Your task to perform on an android device: allow notifications from all sites in the chrome app Image 0: 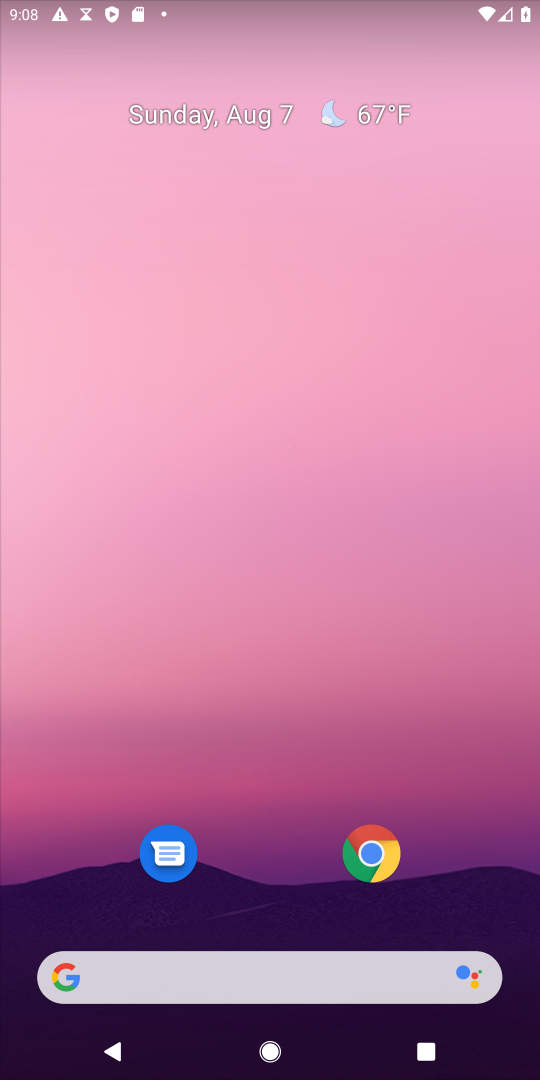
Step 0: drag from (245, 893) to (208, 269)
Your task to perform on an android device: allow notifications from all sites in the chrome app Image 1: 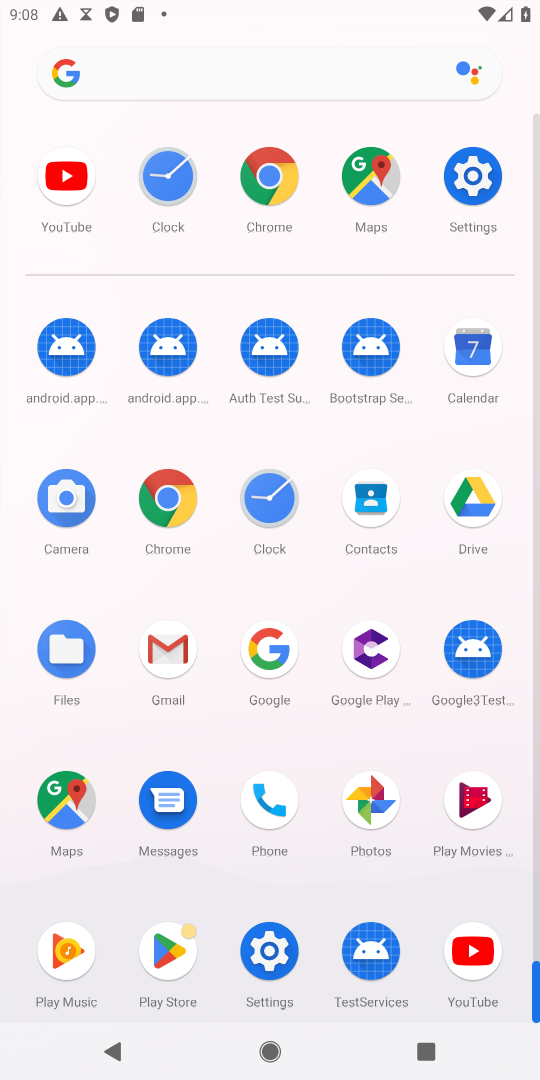
Step 1: click (178, 494)
Your task to perform on an android device: allow notifications from all sites in the chrome app Image 2: 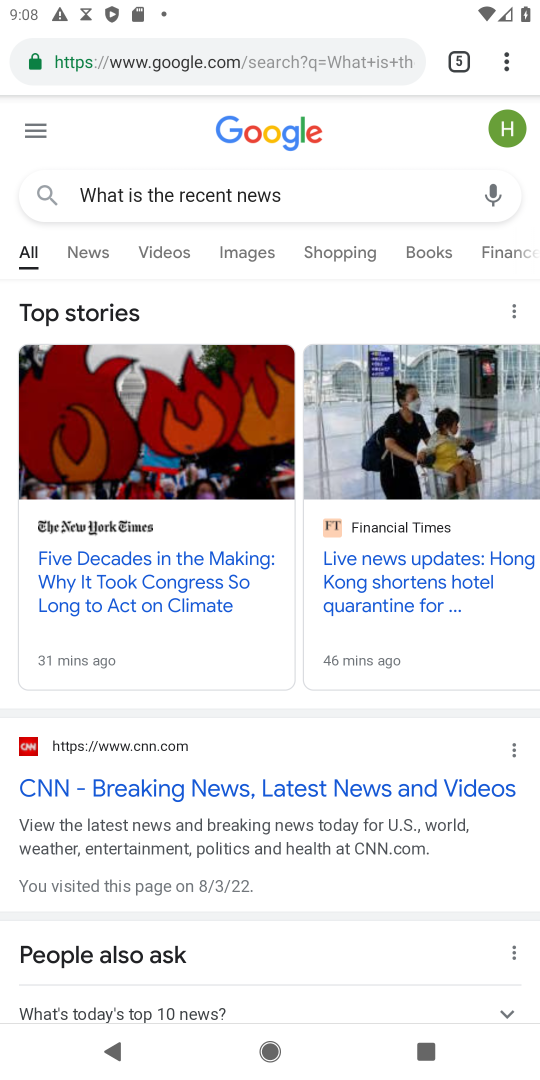
Step 2: click (514, 75)
Your task to perform on an android device: allow notifications from all sites in the chrome app Image 3: 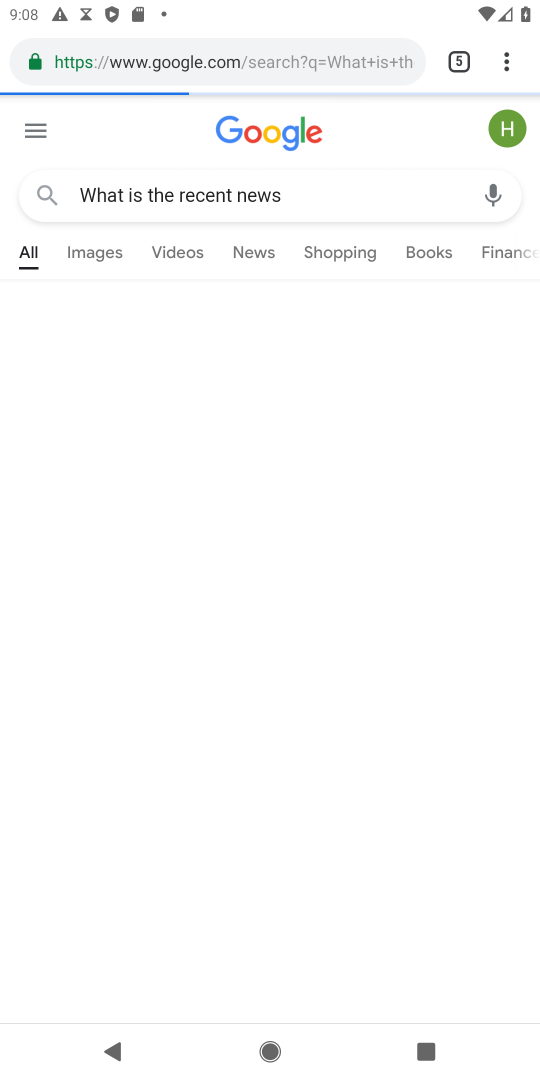
Step 3: click (506, 63)
Your task to perform on an android device: allow notifications from all sites in the chrome app Image 4: 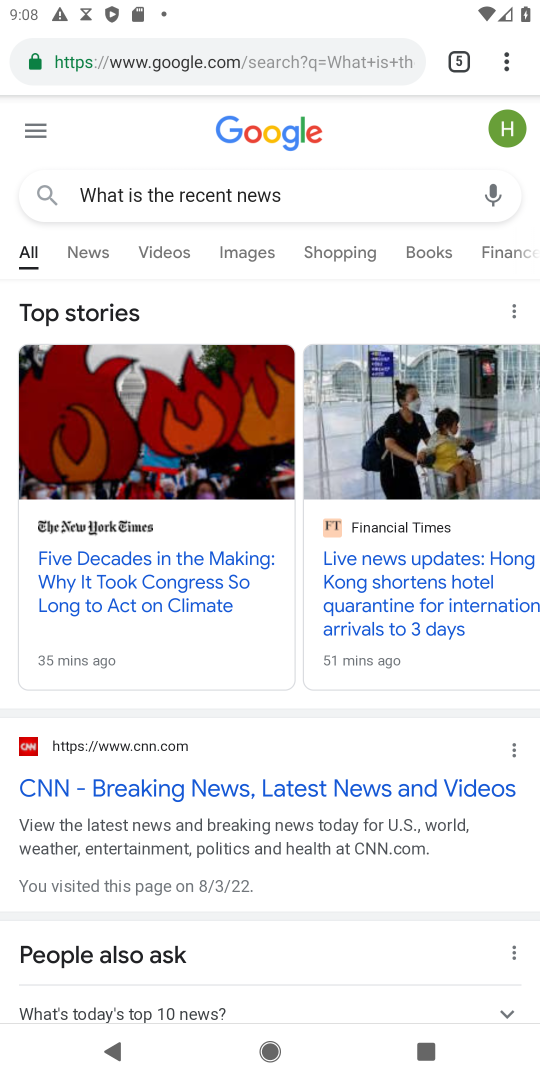
Step 4: click (514, 68)
Your task to perform on an android device: allow notifications from all sites in the chrome app Image 5: 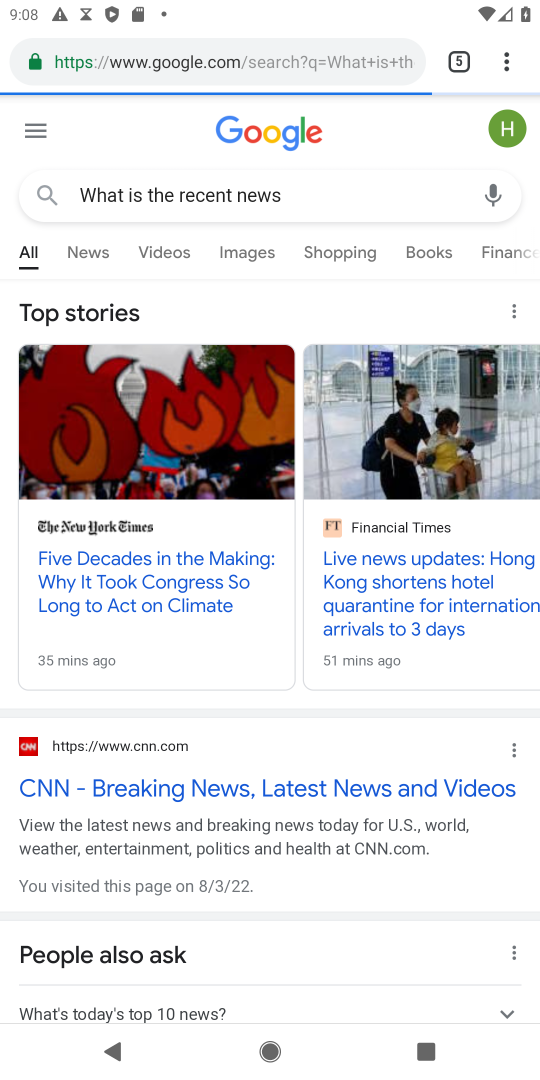
Step 5: click (488, 44)
Your task to perform on an android device: allow notifications from all sites in the chrome app Image 6: 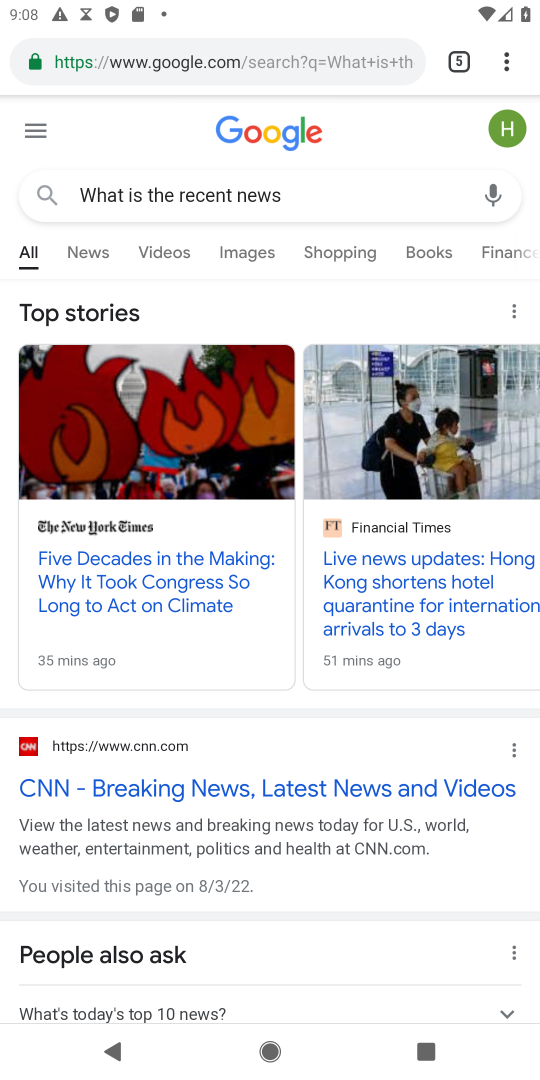
Step 6: click (514, 74)
Your task to perform on an android device: allow notifications from all sites in the chrome app Image 7: 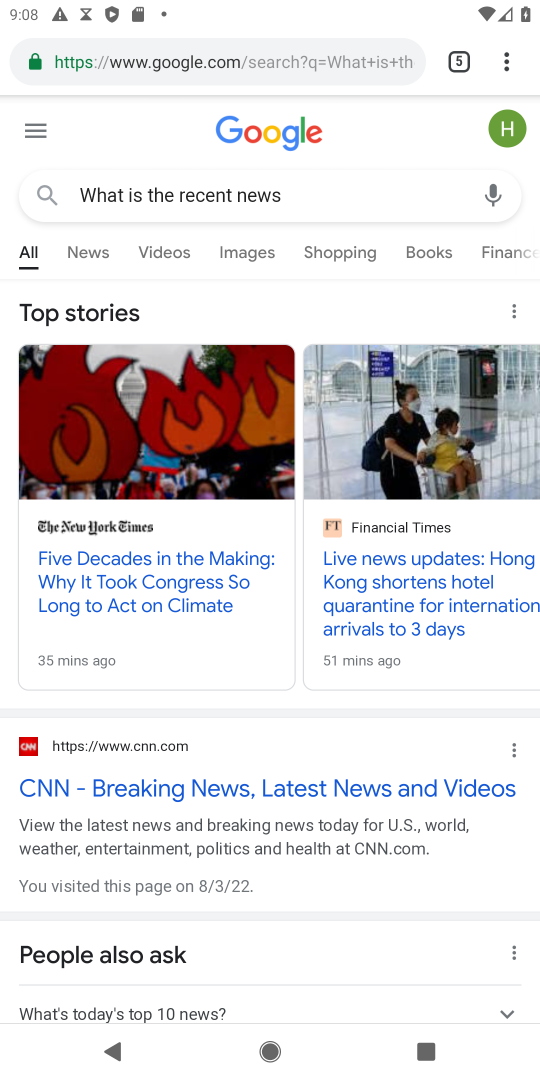
Step 7: click (488, 48)
Your task to perform on an android device: allow notifications from all sites in the chrome app Image 8: 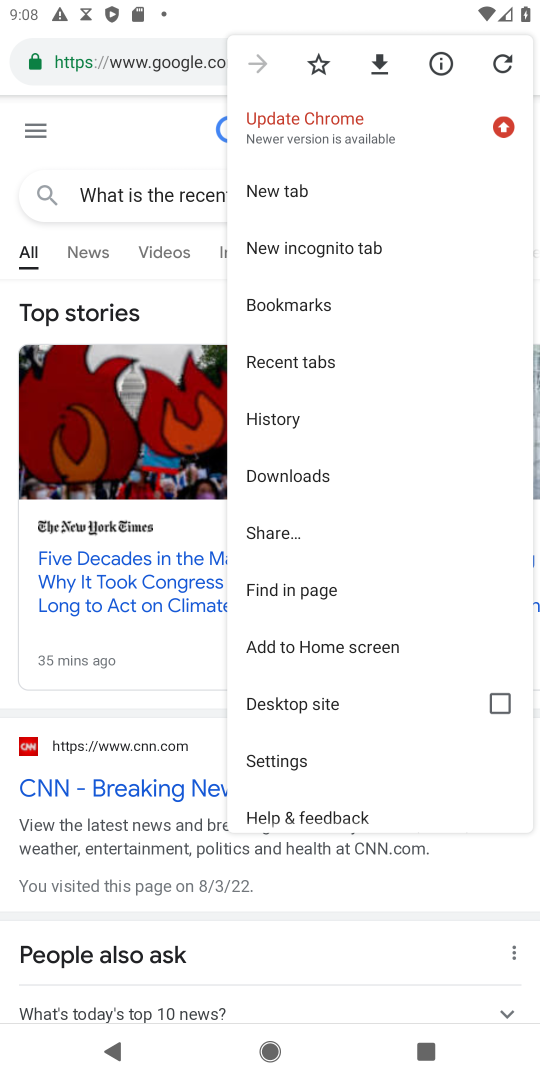
Step 8: click (280, 759)
Your task to perform on an android device: allow notifications from all sites in the chrome app Image 9: 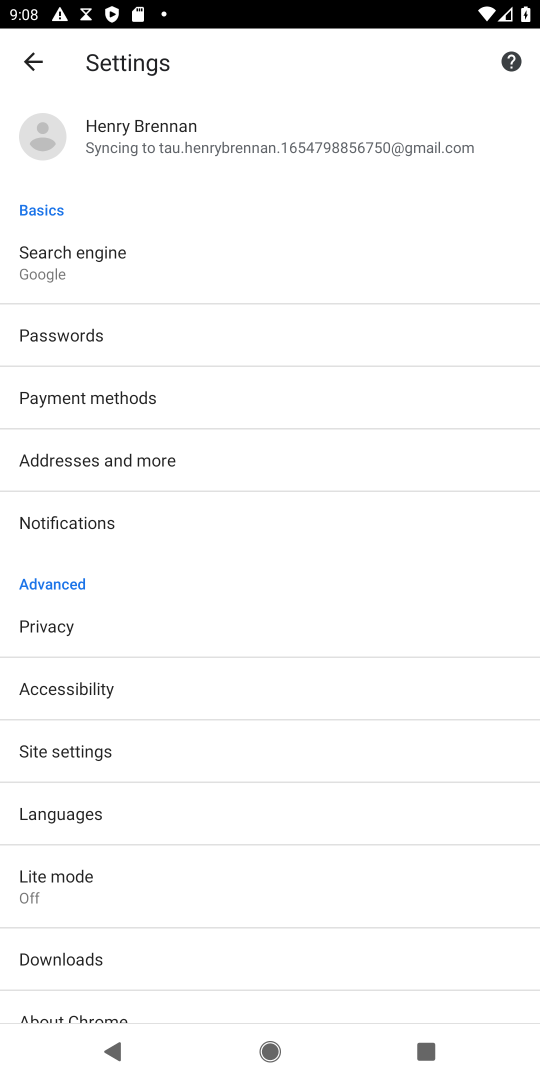
Step 9: click (130, 739)
Your task to perform on an android device: allow notifications from all sites in the chrome app Image 10: 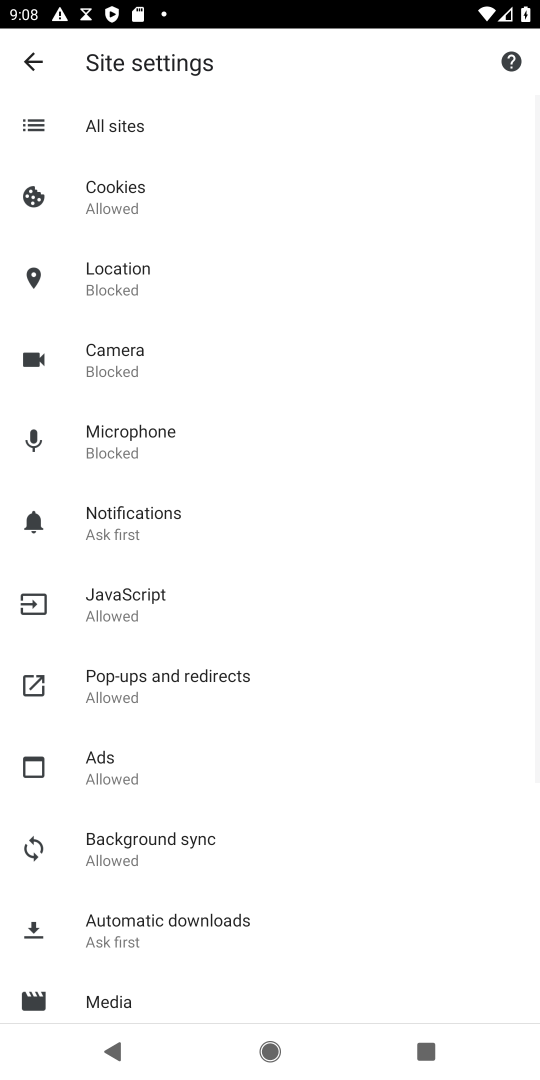
Step 10: click (123, 182)
Your task to perform on an android device: allow notifications from all sites in the chrome app Image 11: 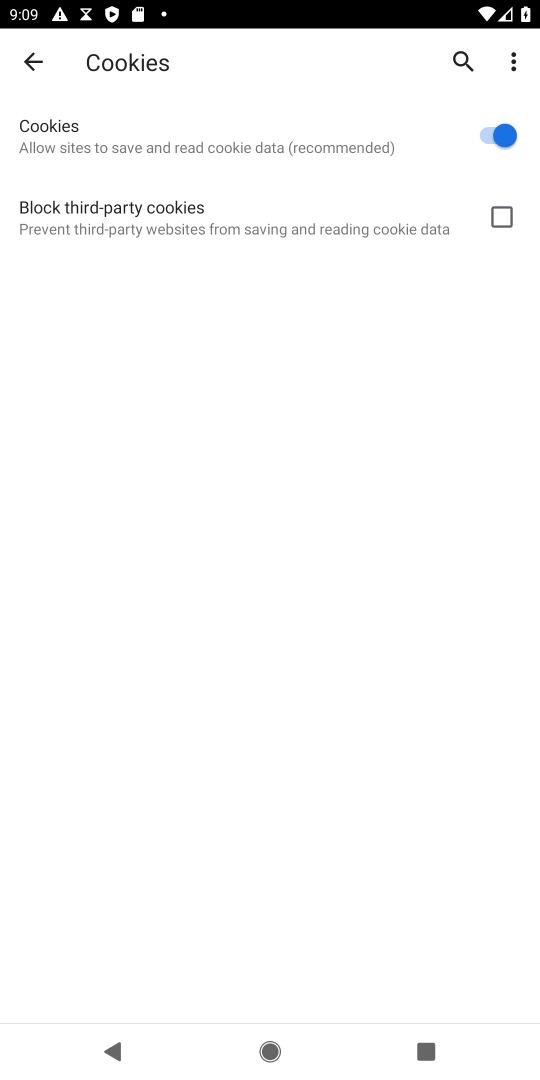
Step 11: click (14, 51)
Your task to perform on an android device: allow notifications from all sites in the chrome app Image 12: 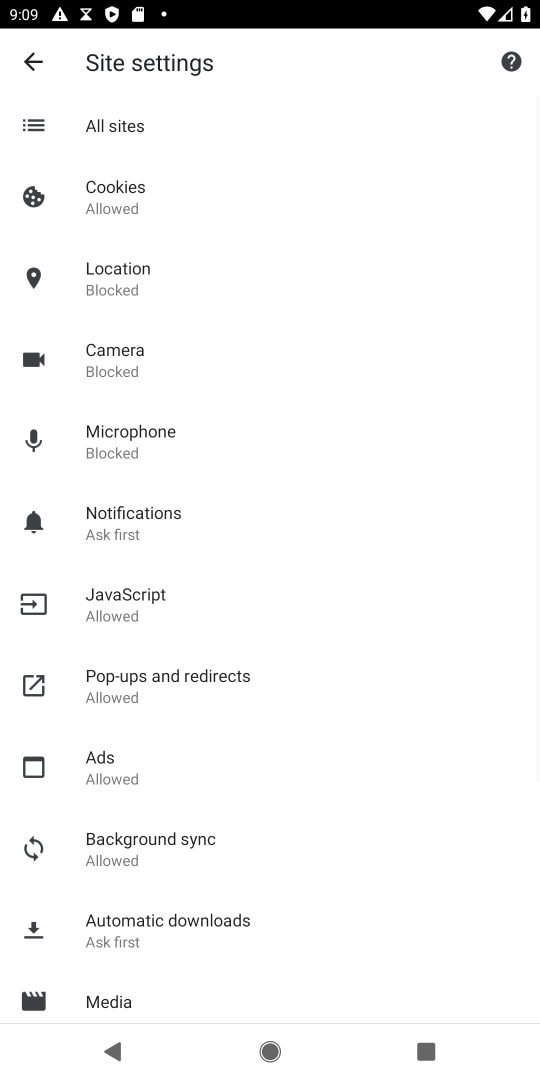
Step 12: click (122, 271)
Your task to perform on an android device: allow notifications from all sites in the chrome app Image 13: 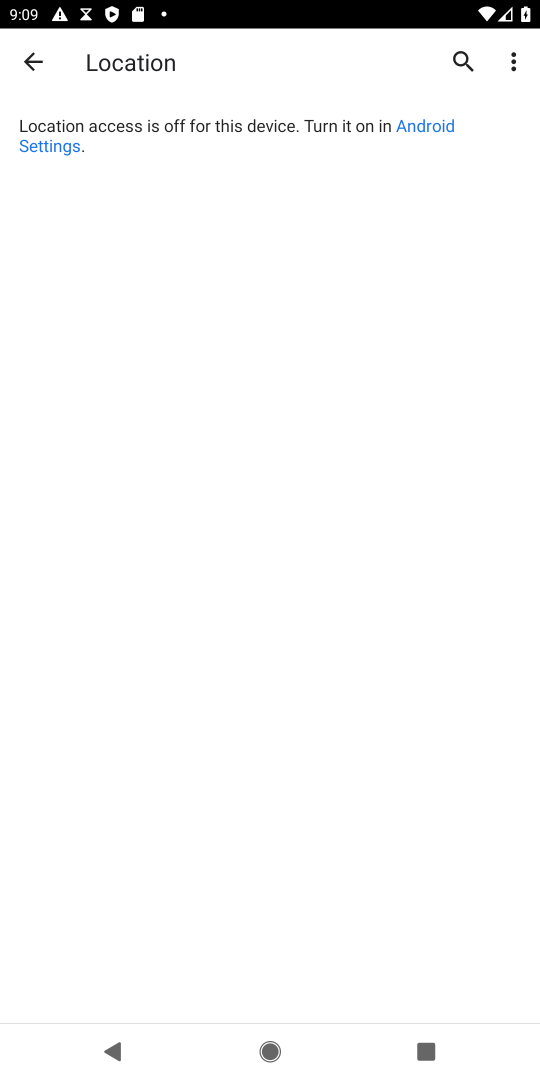
Step 13: click (51, 49)
Your task to perform on an android device: allow notifications from all sites in the chrome app Image 14: 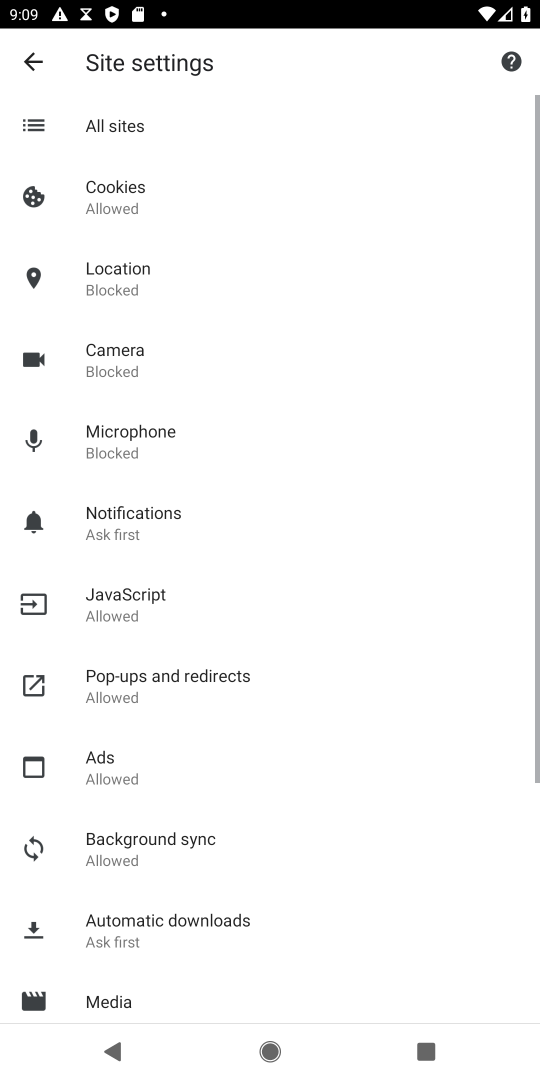
Step 14: click (151, 436)
Your task to perform on an android device: allow notifications from all sites in the chrome app Image 15: 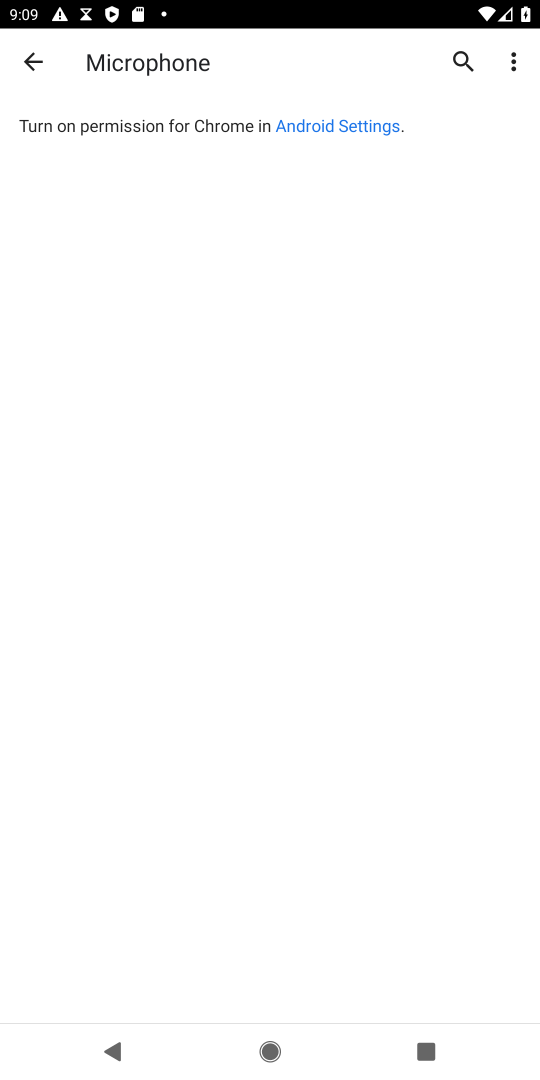
Step 15: click (40, 64)
Your task to perform on an android device: allow notifications from all sites in the chrome app Image 16: 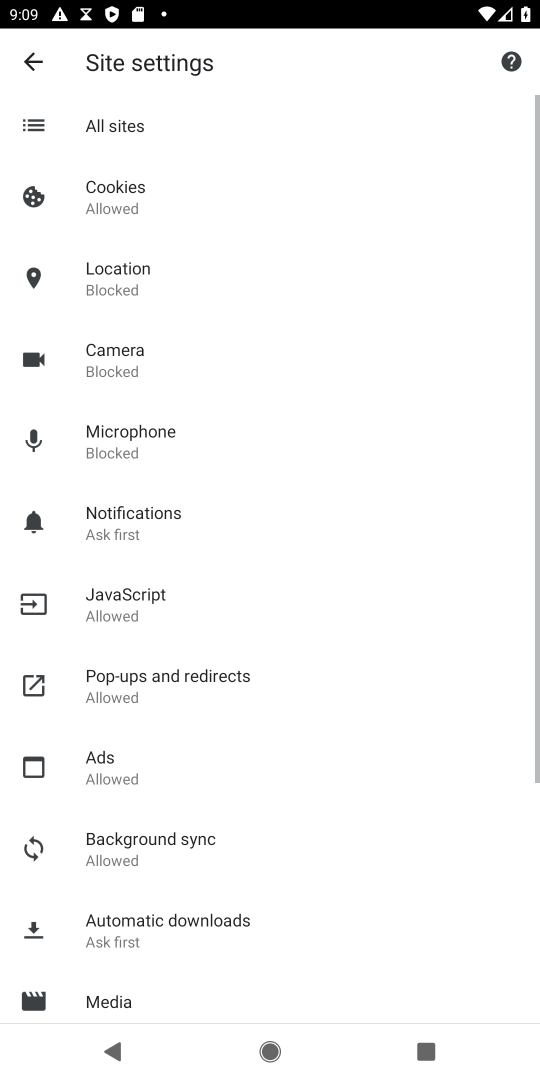
Step 16: click (201, 719)
Your task to perform on an android device: allow notifications from all sites in the chrome app Image 17: 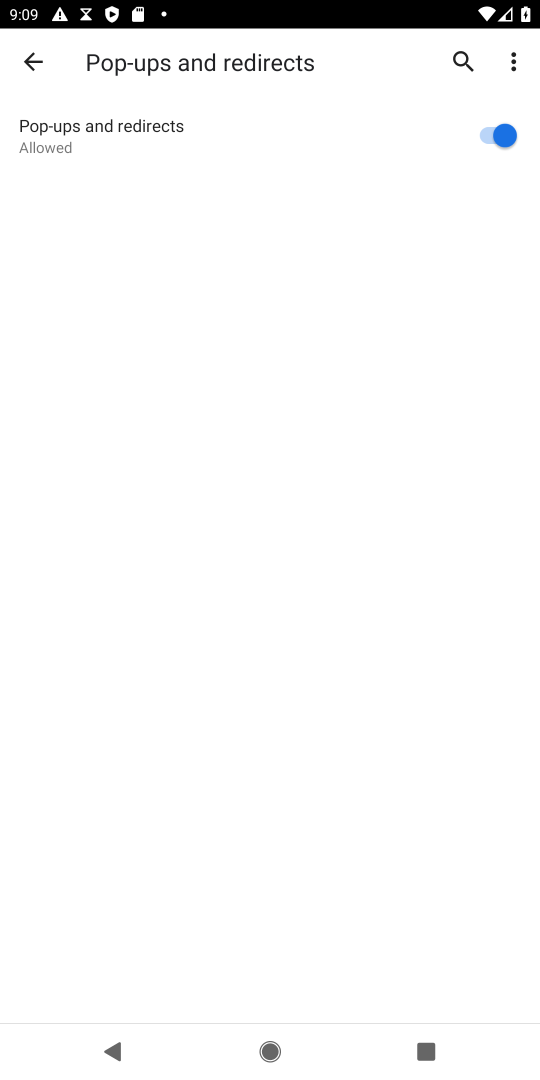
Step 17: click (24, 54)
Your task to perform on an android device: allow notifications from all sites in the chrome app Image 18: 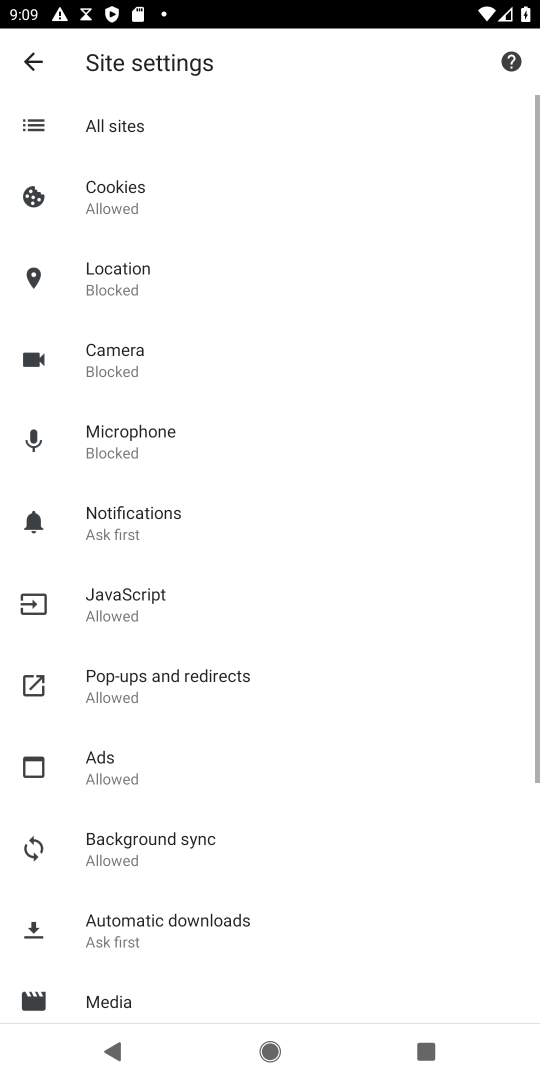
Step 18: drag from (239, 904) to (249, 366)
Your task to perform on an android device: allow notifications from all sites in the chrome app Image 19: 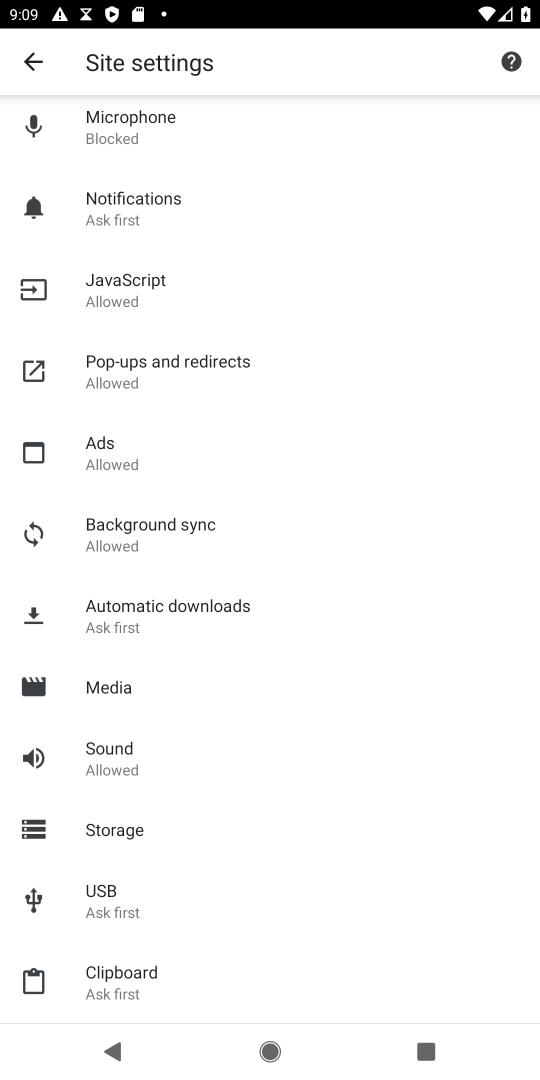
Step 19: click (136, 980)
Your task to perform on an android device: allow notifications from all sites in the chrome app Image 20: 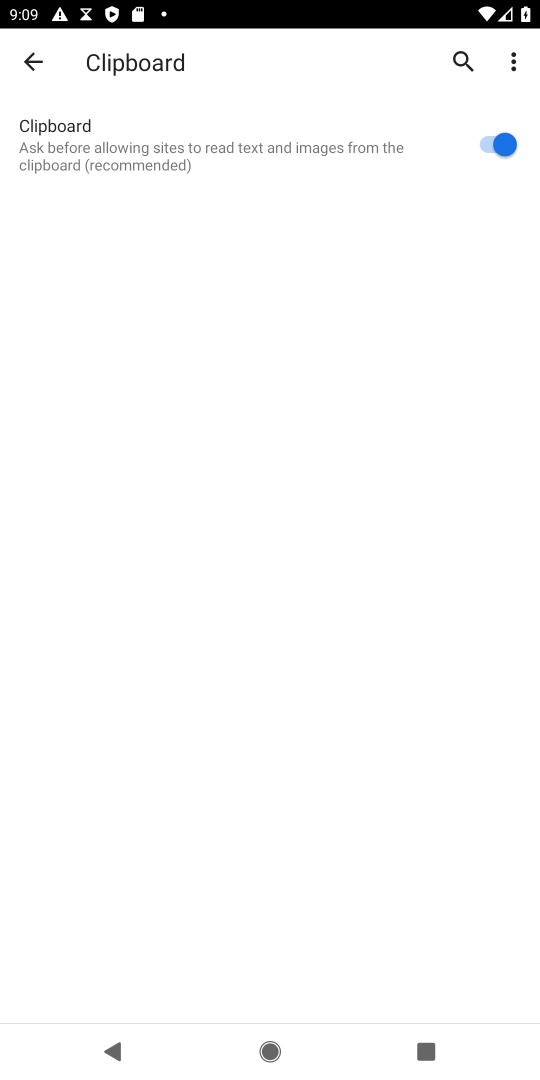
Step 20: click (30, 44)
Your task to perform on an android device: allow notifications from all sites in the chrome app Image 21: 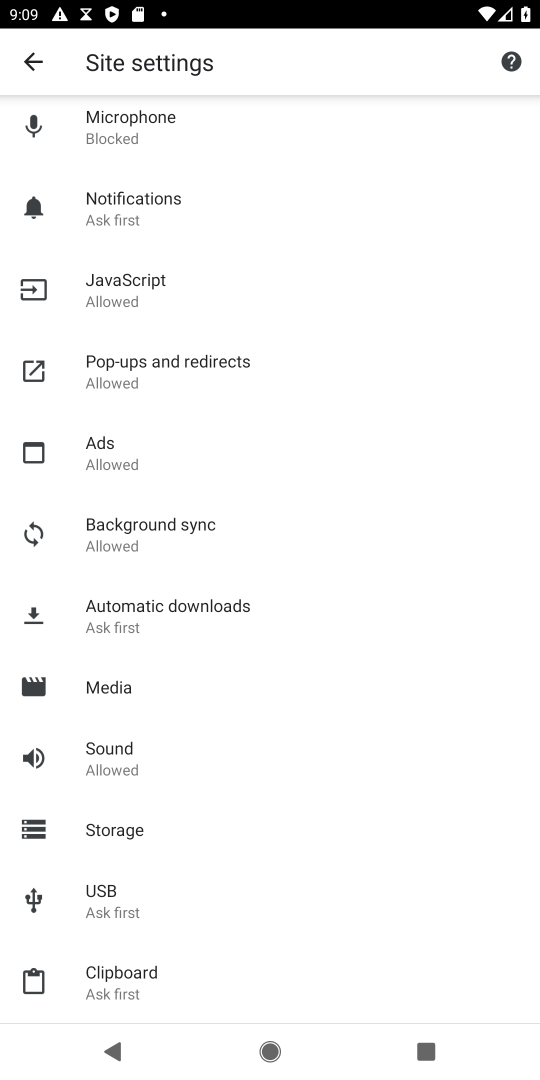
Step 21: task complete